Your task to perform on an android device: Do I have any events tomorrow? Image 0: 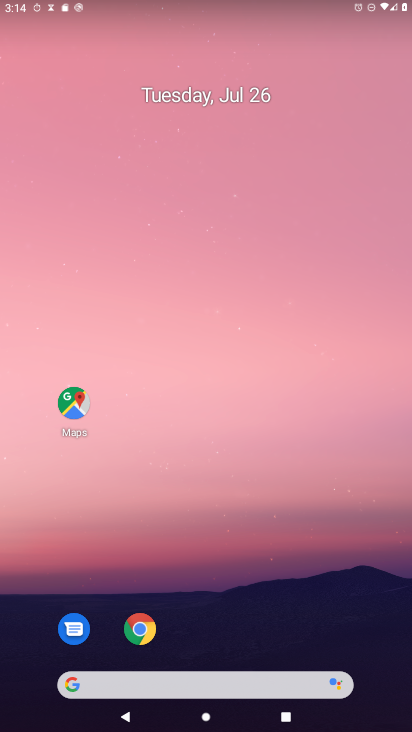
Step 0: drag from (251, 688) to (262, 49)
Your task to perform on an android device: Do I have any events tomorrow? Image 1: 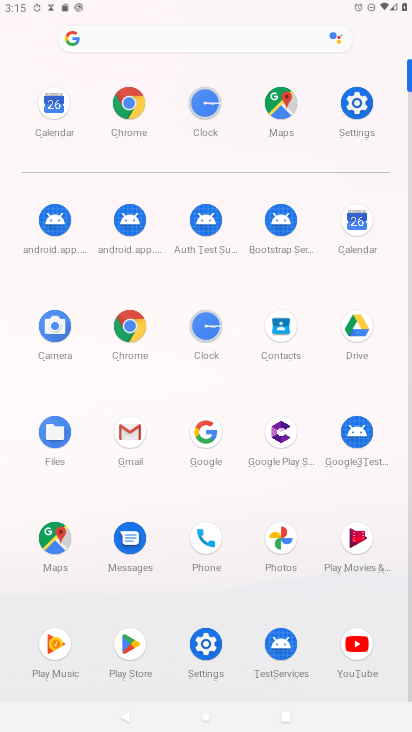
Step 1: click (366, 211)
Your task to perform on an android device: Do I have any events tomorrow? Image 2: 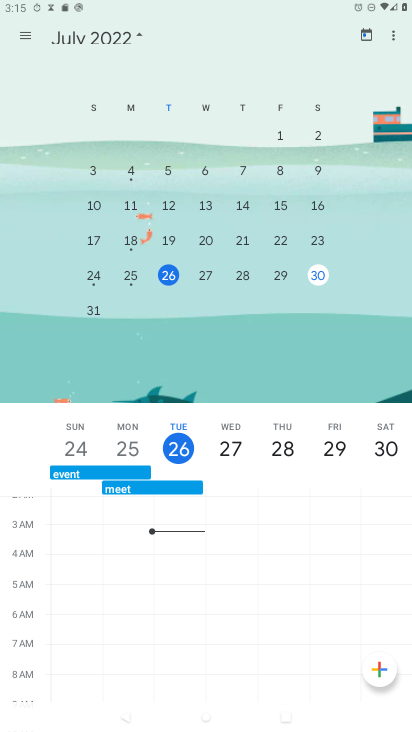
Step 2: click (200, 274)
Your task to perform on an android device: Do I have any events tomorrow? Image 3: 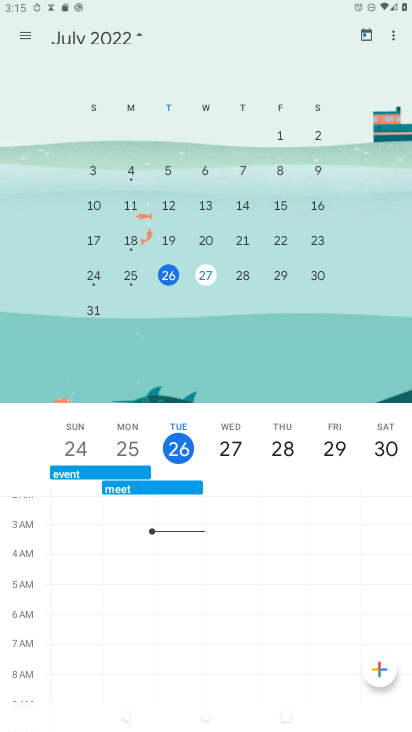
Step 3: task complete